Your task to perform on an android device: allow cookies in the chrome app Image 0: 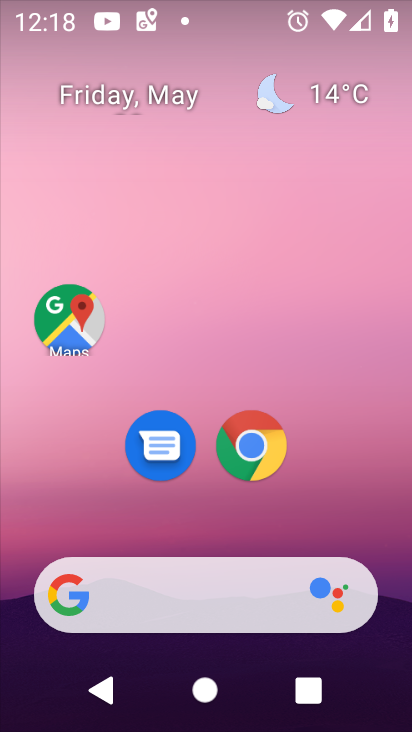
Step 0: drag from (290, 506) to (268, 205)
Your task to perform on an android device: allow cookies in the chrome app Image 1: 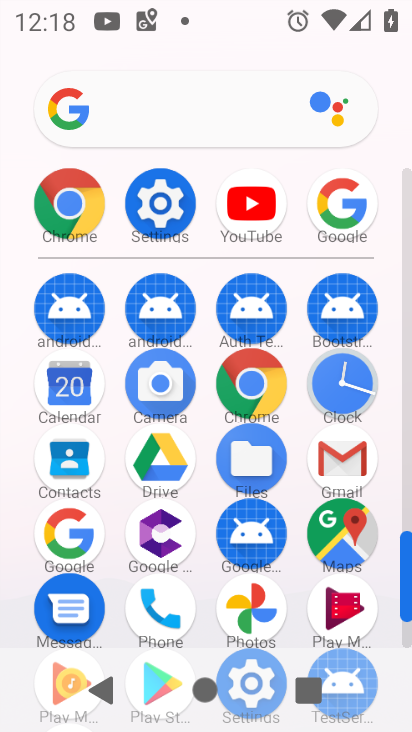
Step 1: click (245, 396)
Your task to perform on an android device: allow cookies in the chrome app Image 2: 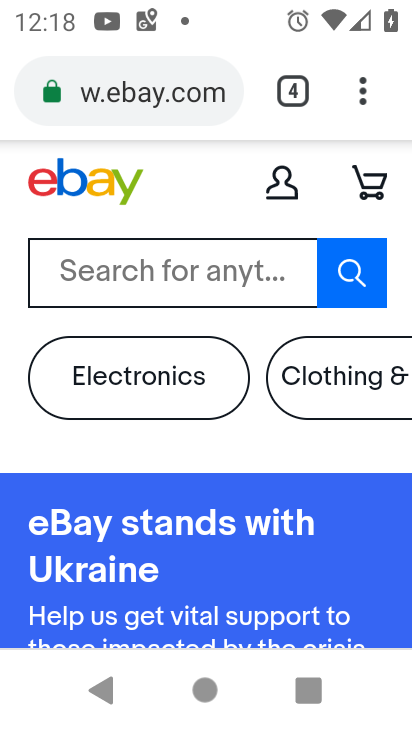
Step 2: click (362, 97)
Your task to perform on an android device: allow cookies in the chrome app Image 3: 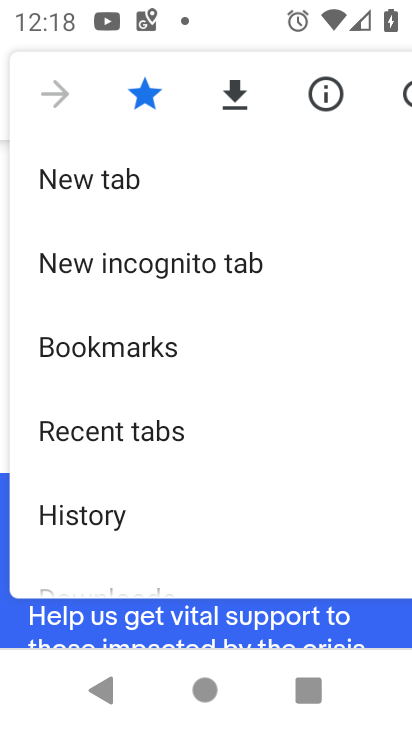
Step 3: drag from (142, 477) to (166, 185)
Your task to perform on an android device: allow cookies in the chrome app Image 4: 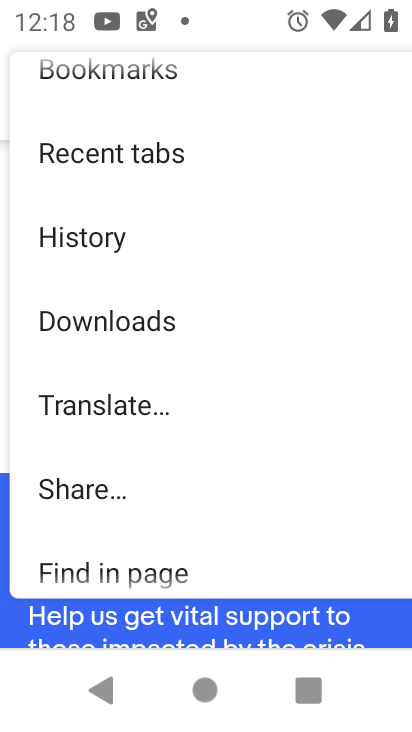
Step 4: drag from (173, 512) to (169, 257)
Your task to perform on an android device: allow cookies in the chrome app Image 5: 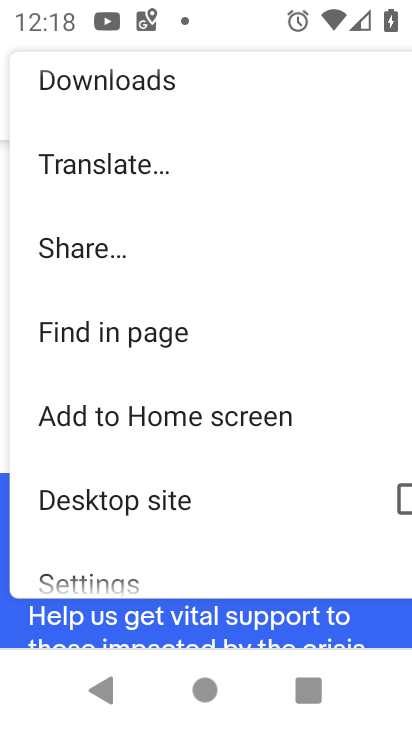
Step 5: drag from (134, 546) to (197, 272)
Your task to perform on an android device: allow cookies in the chrome app Image 6: 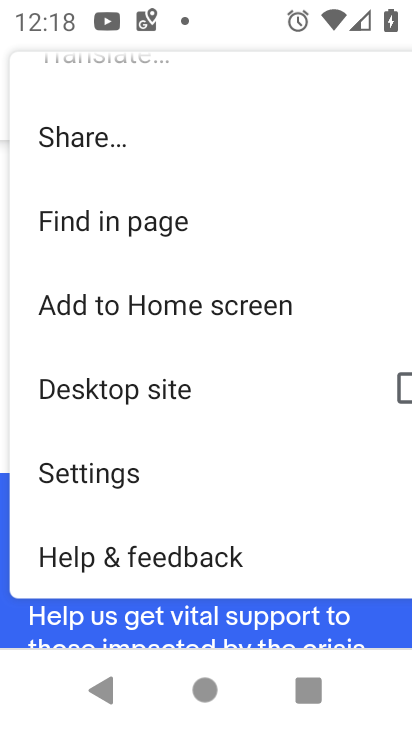
Step 6: click (139, 479)
Your task to perform on an android device: allow cookies in the chrome app Image 7: 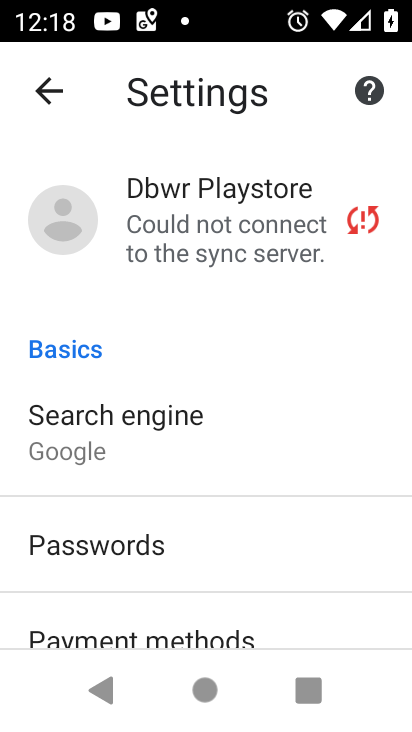
Step 7: drag from (152, 530) to (184, 245)
Your task to perform on an android device: allow cookies in the chrome app Image 8: 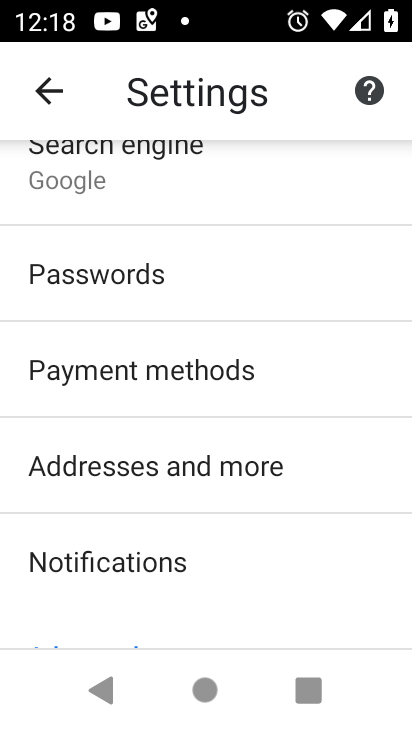
Step 8: drag from (189, 507) to (217, 244)
Your task to perform on an android device: allow cookies in the chrome app Image 9: 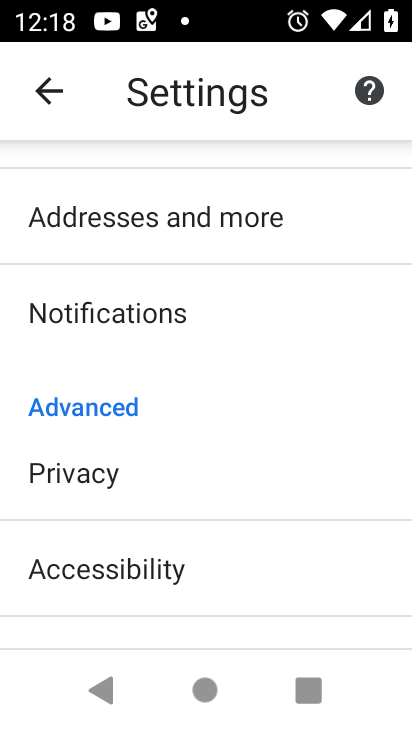
Step 9: drag from (179, 542) to (209, 230)
Your task to perform on an android device: allow cookies in the chrome app Image 10: 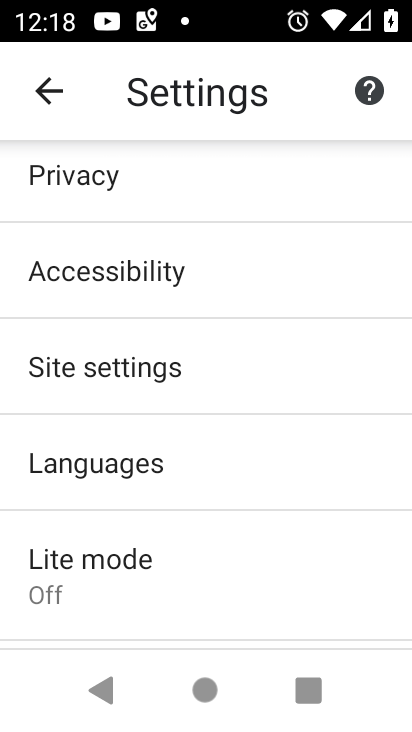
Step 10: click (165, 342)
Your task to perform on an android device: allow cookies in the chrome app Image 11: 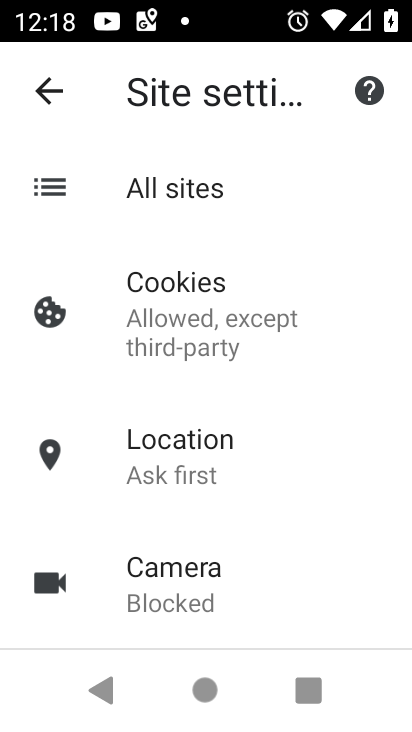
Step 11: click (216, 355)
Your task to perform on an android device: allow cookies in the chrome app Image 12: 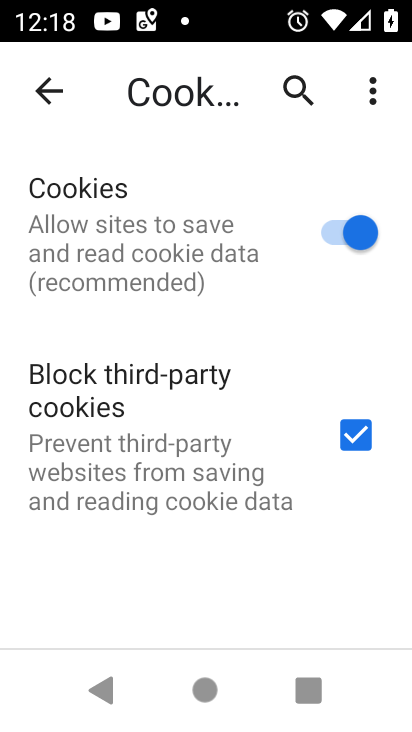
Step 12: task complete